Your task to perform on an android device: find photos in the google photos app Image 0: 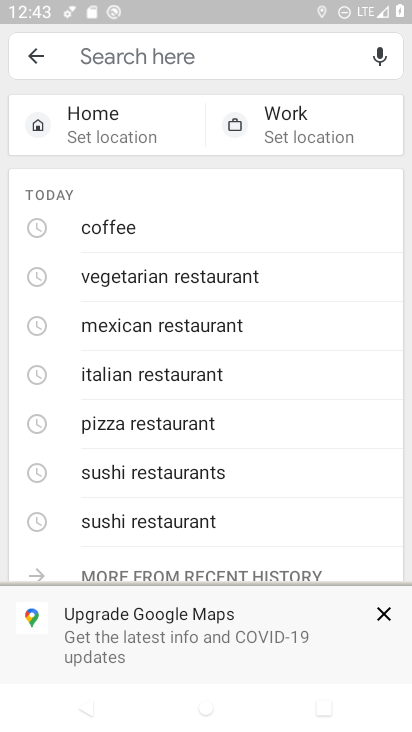
Step 0: press home button
Your task to perform on an android device: find photos in the google photos app Image 1: 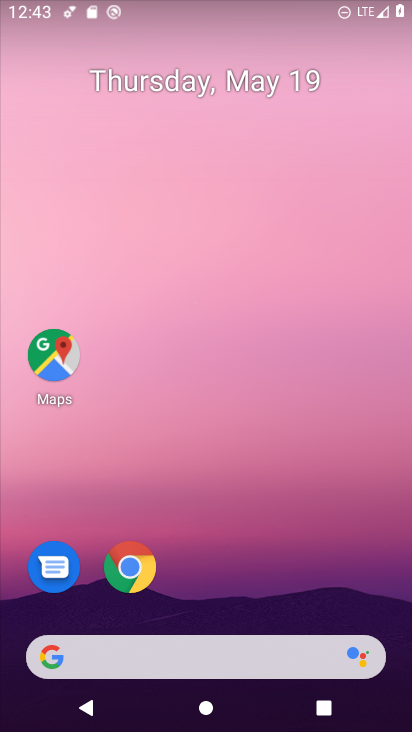
Step 1: drag from (241, 558) to (282, 39)
Your task to perform on an android device: find photos in the google photos app Image 2: 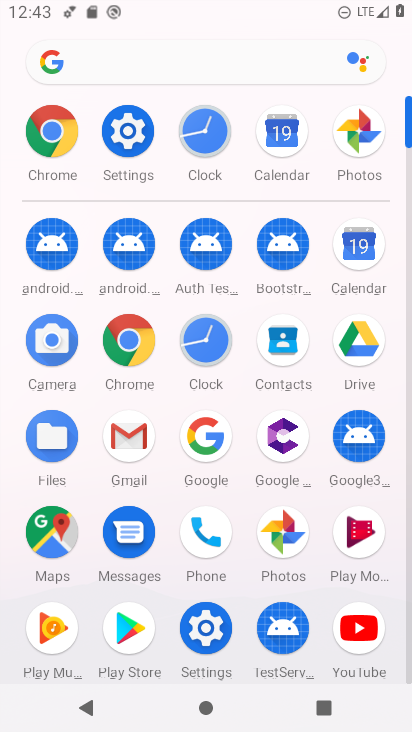
Step 2: click (357, 124)
Your task to perform on an android device: find photos in the google photos app Image 3: 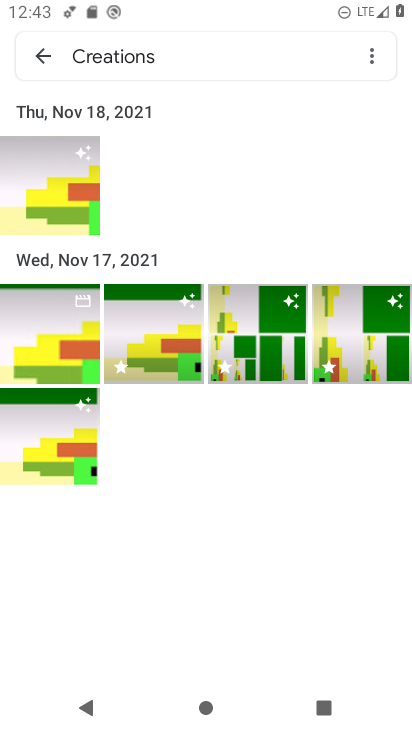
Step 3: click (39, 48)
Your task to perform on an android device: find photos in the google photos app Image 4: 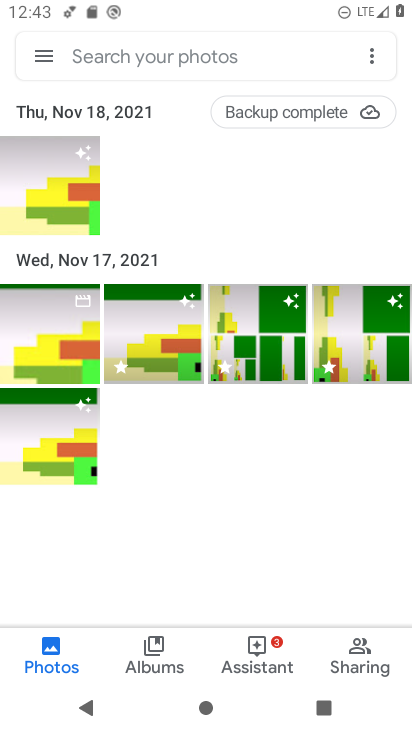
Step 4: task complete